Your task to perform on an android device: stop showing notifications on the lock screen Image 0: 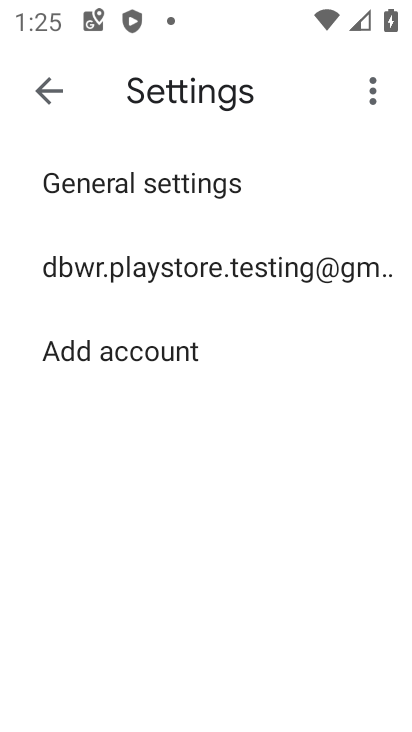
Step 0: press home button
Your task to perform on an android device: stop showing notifications on the lock screen Image 1: 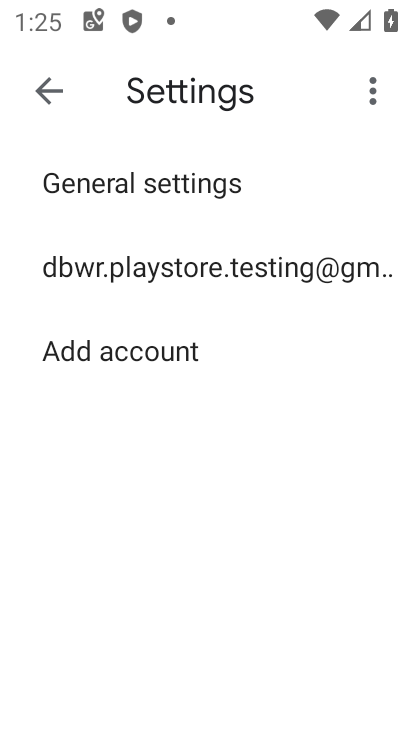
Step 1: press home button
Your task to perform on an android device: stop showing notifications on the lock screen Image 2: 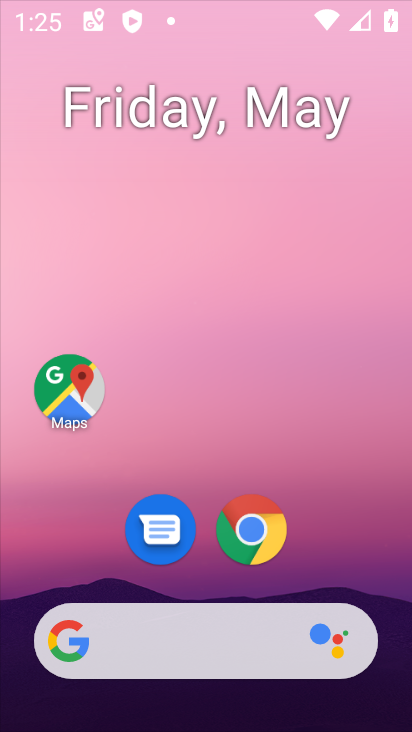
Step 2: press home button
Your task to perform on an android device: stop showing notifications on the lock screen Image 3: 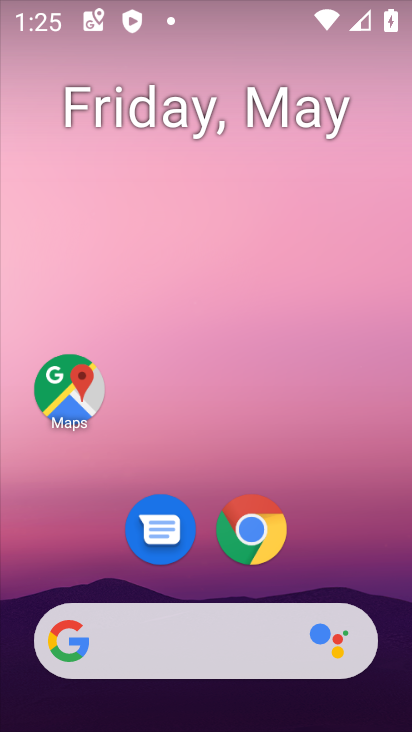
Step 3: drag from (361, 576) to (270, 55)
Your task to perform on an android device: stop showing notifications on the lock screen Image 4: 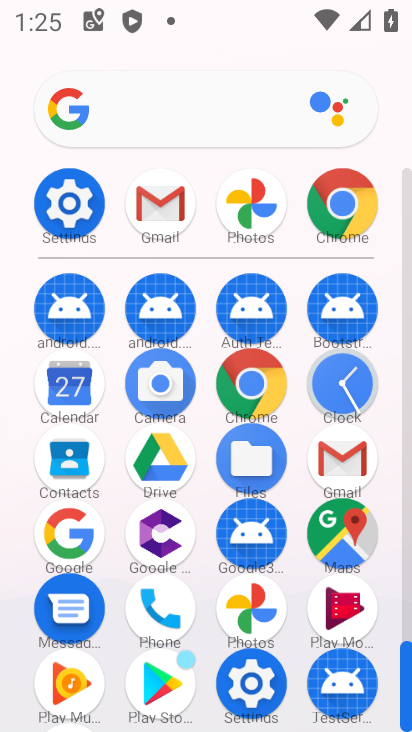
Step 4: click (89, 225)
Your task to perform on an android device: stop showing notifications on the lock screen Image 5: 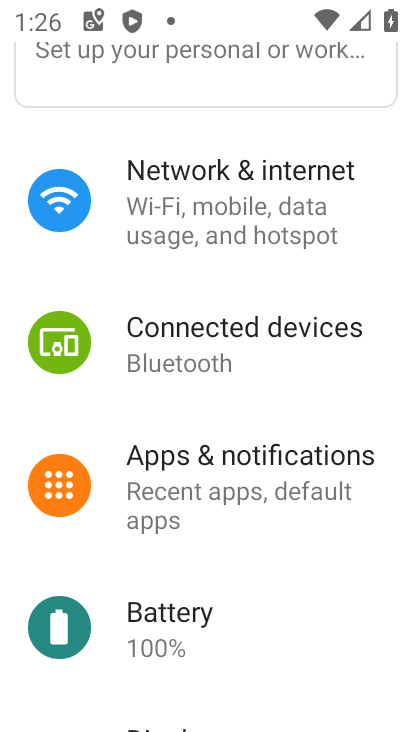
Step 5: click (195, 480)
Your task to perform on an android device: stop showing notifications on the lock screen Image 6: 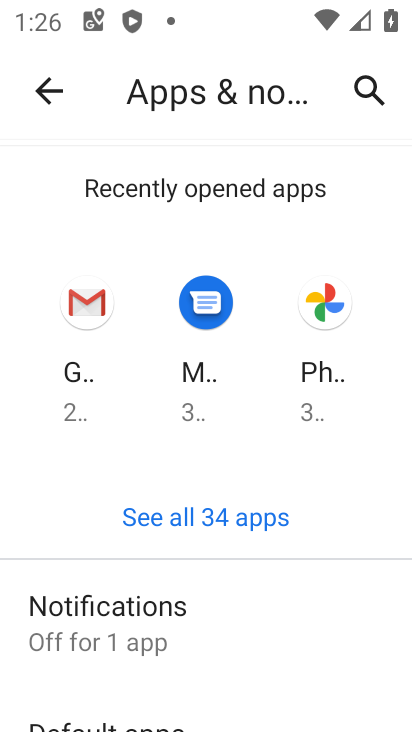
Step 6: task complete